Your task to perform on an android device: Go to eBay Image 0: 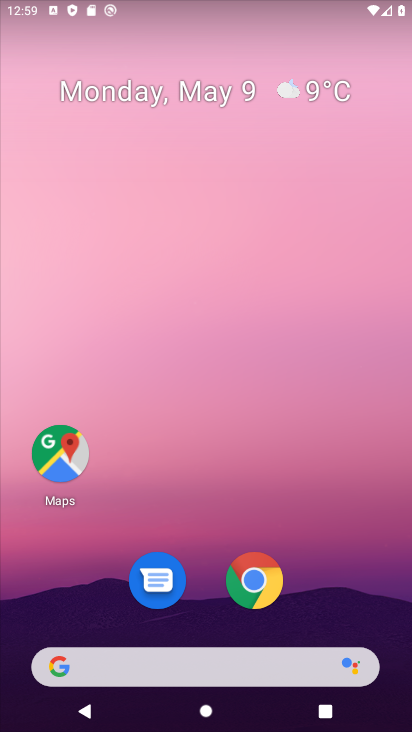
Step 0: click (251, 586)
Your task to perform on an android device: Go to eBay Image 1: 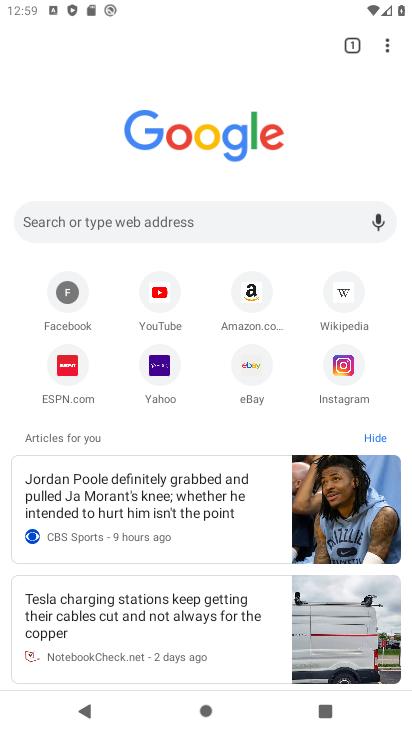
Step 1: click (248, 371)
Your task to perform on an android device: Go to eBay Image 2: 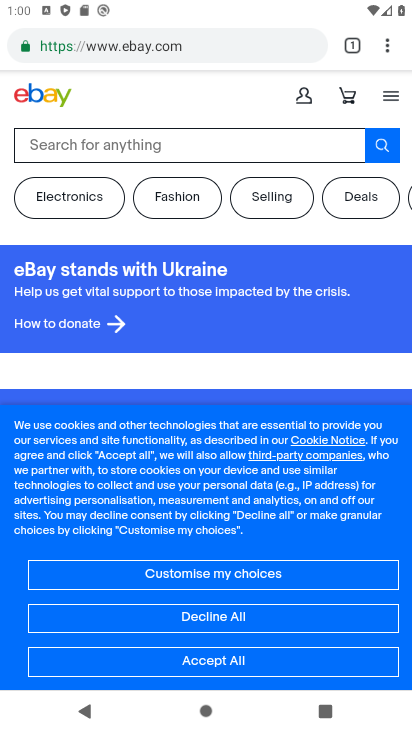
Step 2: task complete